Your task to perform on an android device: Is it going to rain today? Image 0: 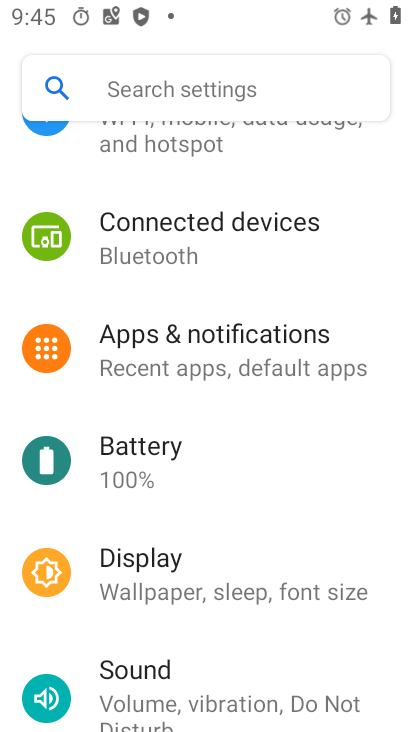
Step 0: drag from (296, 467) to (164, 67)
Your task to perform on an android device: Is it going to rain today? Image 1: 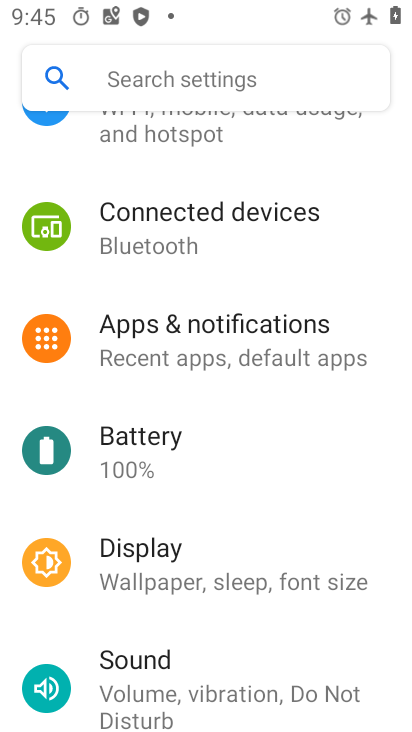
Step 1: press back button
Your task to perform on an android device: Is it going to rain today? Image 2: 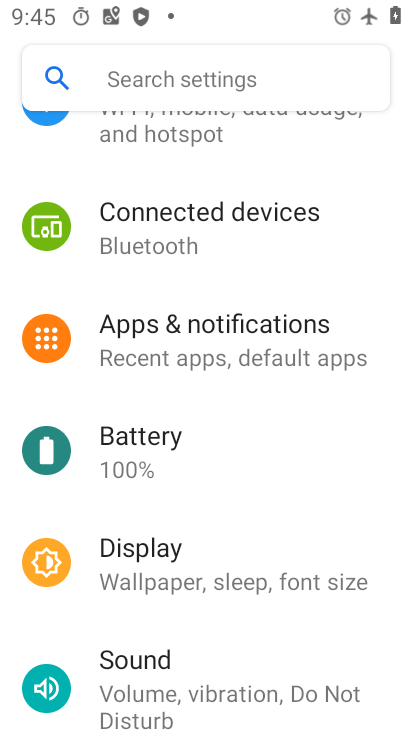
Step 2: press back button
Your task to perform on an android device: Is it going to rain today? Image 3: 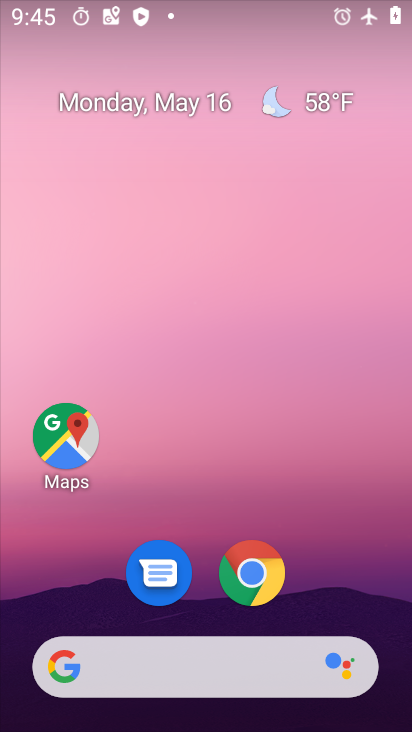
Step 3: drag from (277, 663) to (126, 175)
Your task to perform on an android device: Is it going to rain today? Image 4: 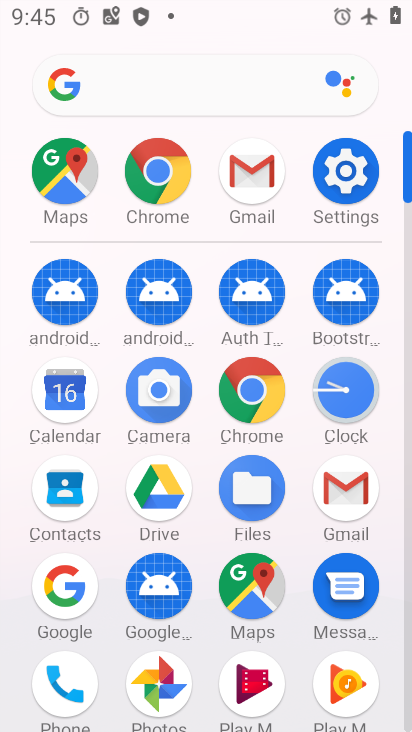
Step 4: press back button
Your task to perform on an android device: Is it going to rain today? Image 5: 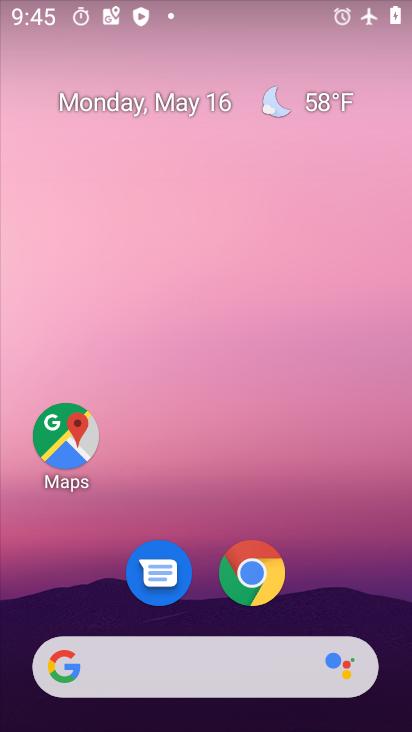
Step 5: press back button
Your task to perform on an android device: Is it going to rain today? Image 6: 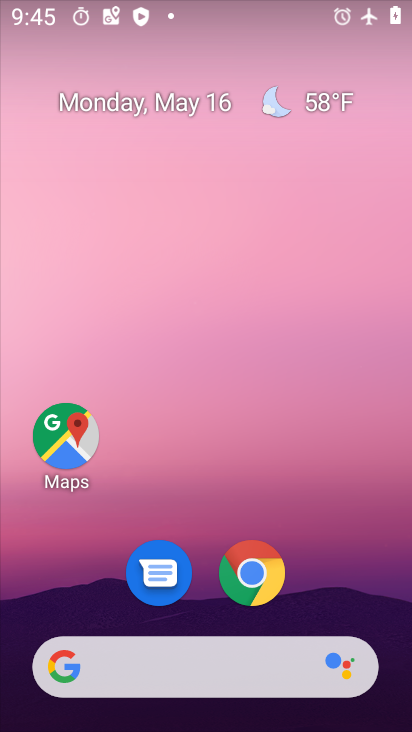
Step 6: drag from (15, 237) to (404, 555)
Your task to perform on an android device: Is it going to rain today? Image 7: 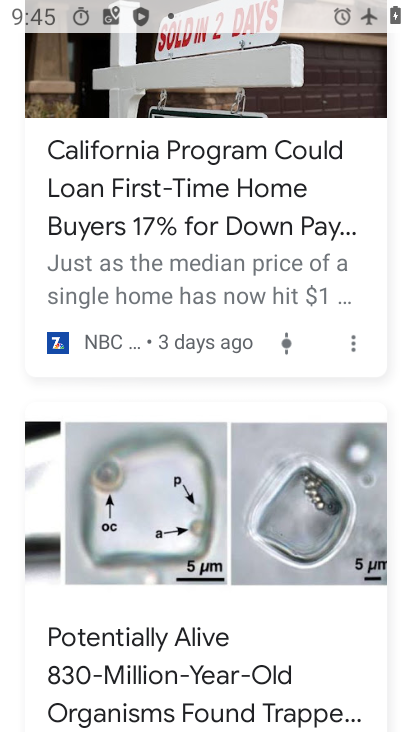
Step 7: drag from (125, 135) to (236, 632)
Your task to perform on an android device: Is it going to rain today? Image 8: 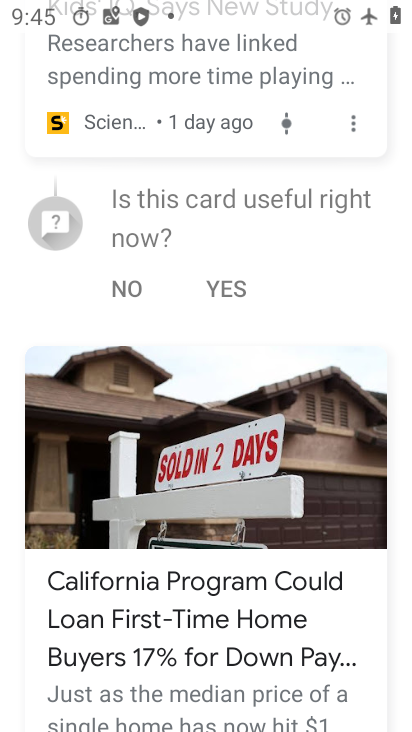
Step 8: drag from (270, 521) to (298, 588)
Your task to perform on an android device: Is it going to rain today? Image 9: 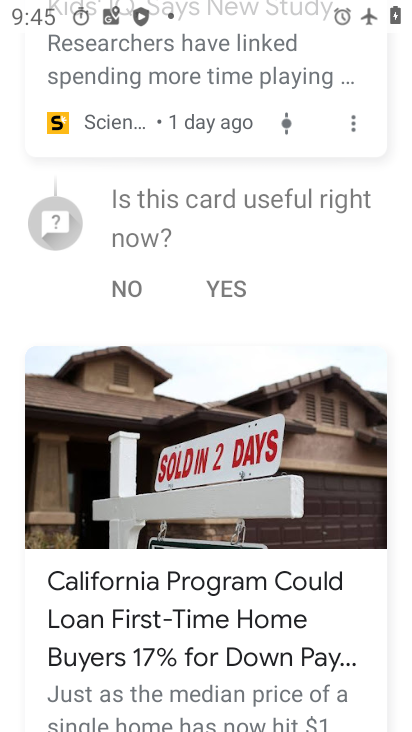
Step 9: drag from (161, 241) to (193, 622)
Your task to perform on an android device: Is it going to rain today? Image 10: 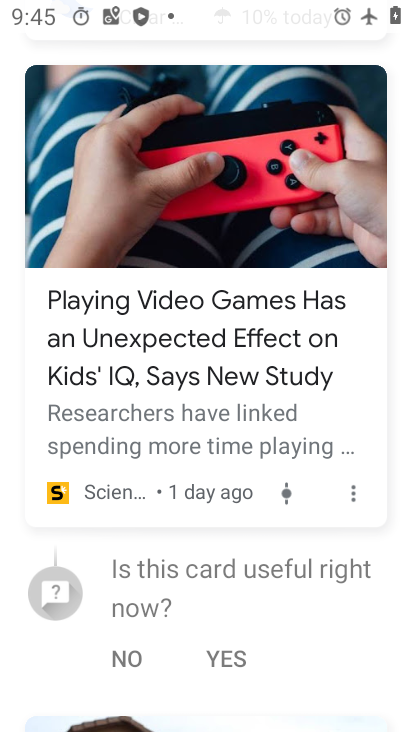
Step 10: drag from (141, 308) to (216, 515)
Your task to perform on an android device: Is it going to rain today? Image 11: 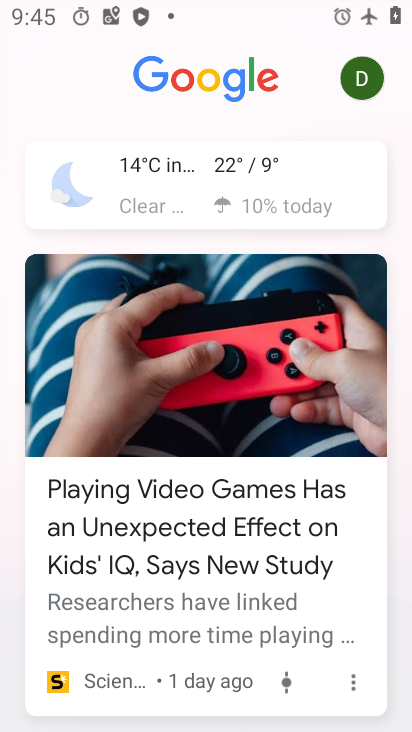
Step 11: click (188, 198)
Your task to perform on an android device: Is it going to rain today? Image 12: 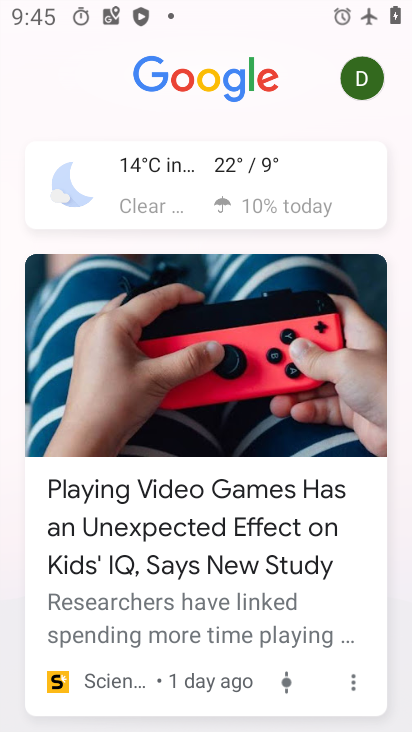
Step 12: click (188, 196)
Your task to perform on an android device: Is it going to rain today? Image 13: 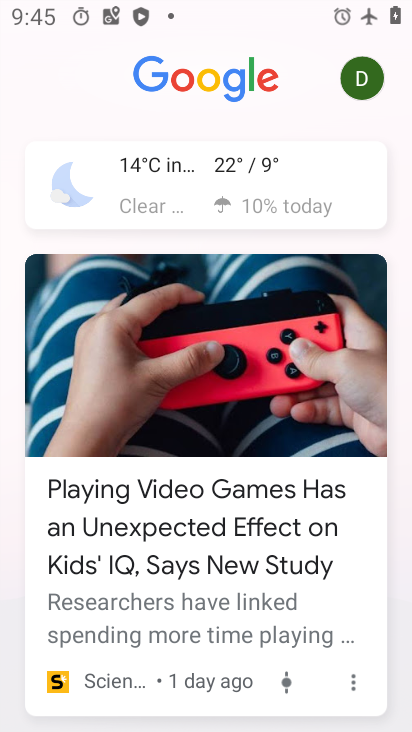
Step 13: click (188, 196)
Your task to perform on an android device: Is it going to rain today? Image 14: 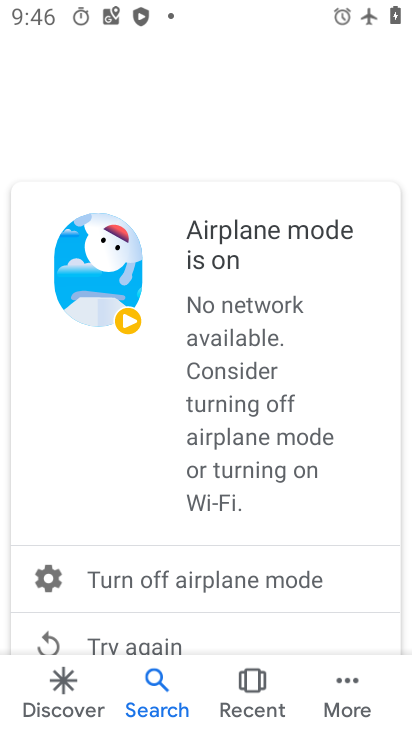
Step 14: task complete